Your task to perform on an android device: Open the calendar and show me this week's events Image 0: 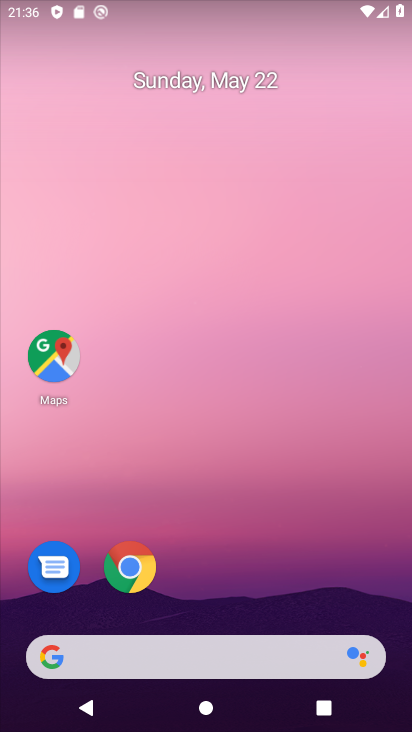
Step 0: drag from (272, 617) to (232, 299)
Your task to perform on an android device: Open the calendar and show me this week's events Image 1: 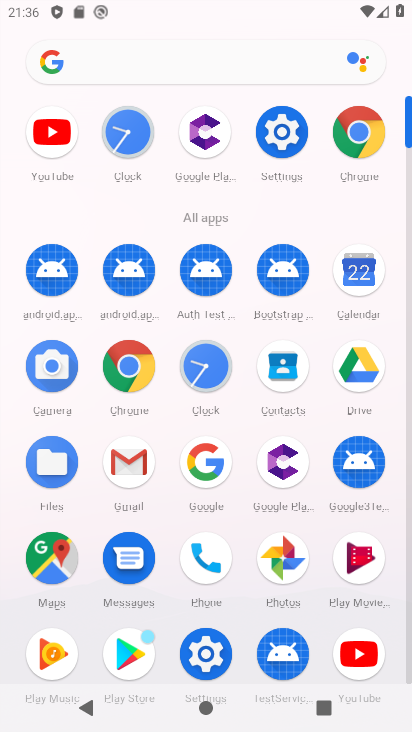
Step 1: click (348, 269)
Your task to perform on an android device: Open the calendar and show me this week's events Image 2: 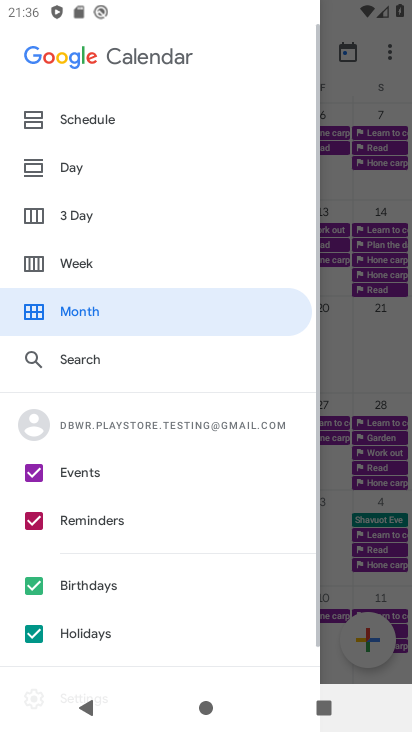
Step 2: click (94, 310)
Your task to perform on an android device: Open the calendar and show me this week's events Image 3: 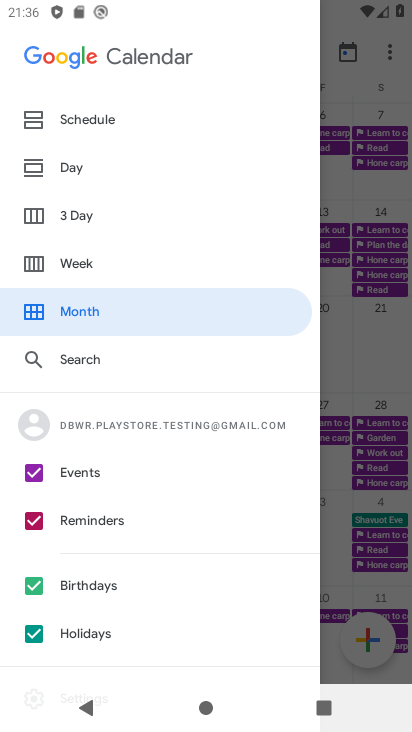
Step 3: click (119, 264)
Your task to perform on an android device: Open the calendar and show me this week's events Image 4: 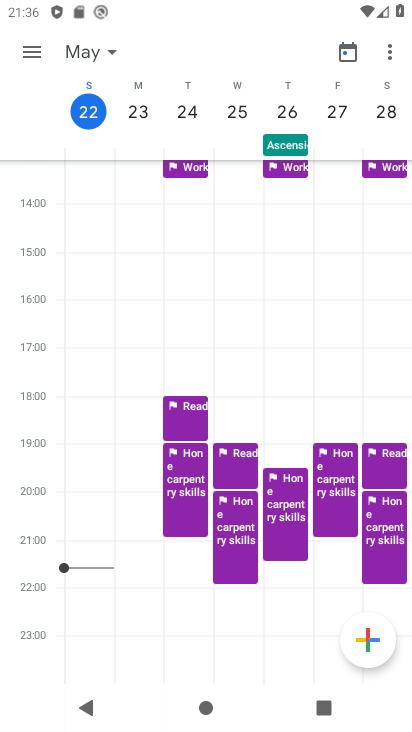
Step 4: task complete